Your task to perform on an android device: toggle translation in the chrome app Image 0: 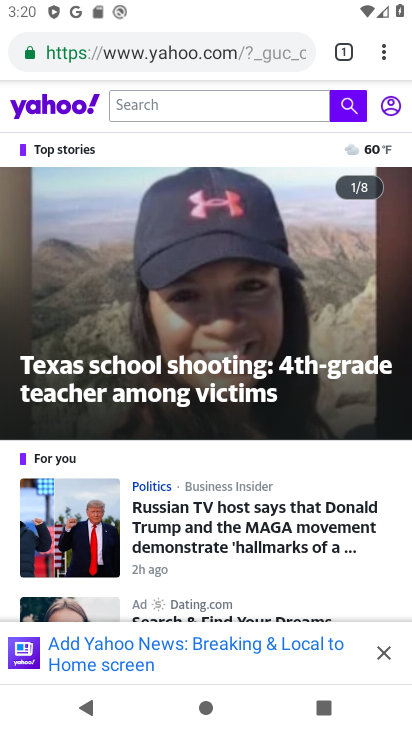
Step 0: press home button
Your task to perform on an android device: toggle translation in the chrome app Image 1: 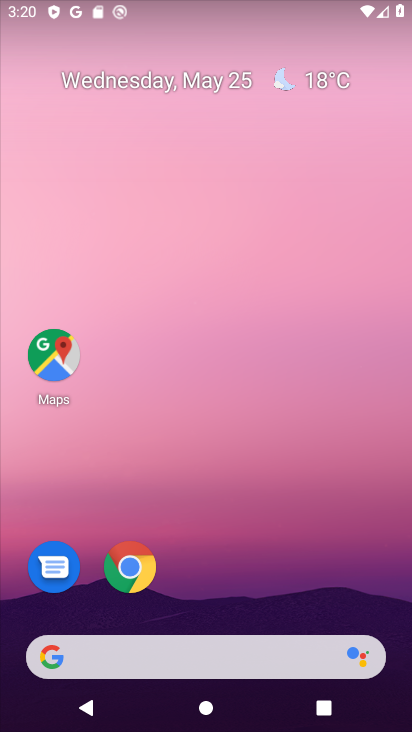
Step 1: drag from (372, 578) to (378, 227)
Your task to perform on an android device: toggle translation in the chrome app Image 2: 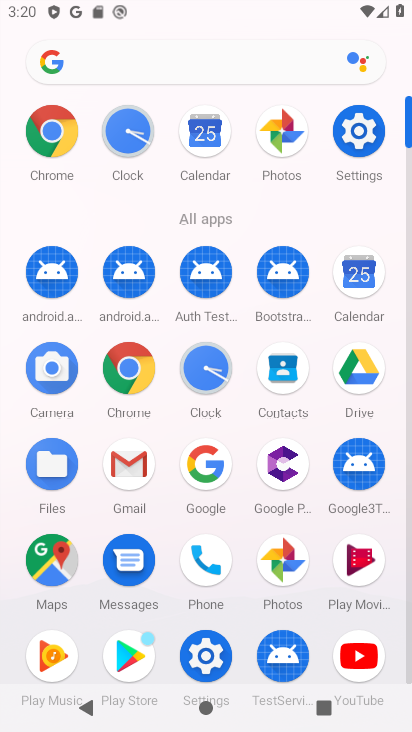
Step 2: click (102, 386)
Your task to perform on an android device: toggle translation in the chrome app Image 3: 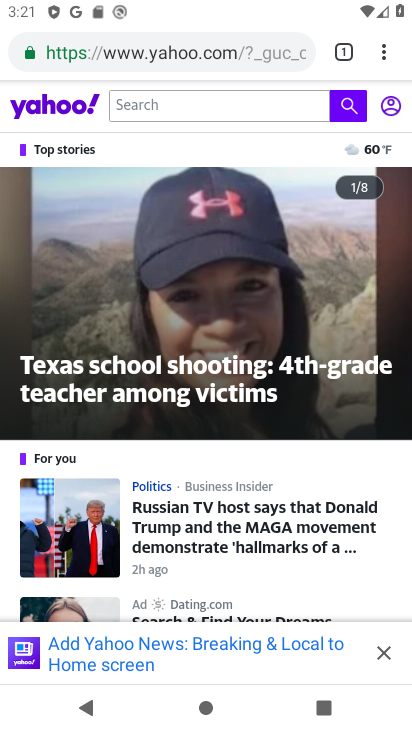
Step 3: click (386, 59)
Your task to perform on an android device: toggle translation in the chrome app Image 4: 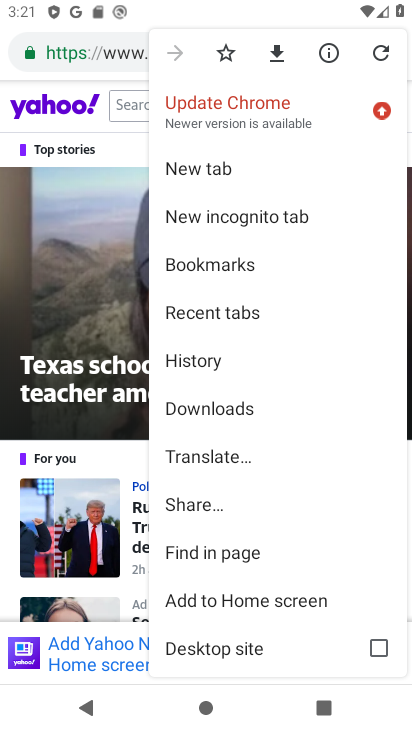
Step 4: drag from (268, 593) to (306, 353)
Your task to perform on an android device: toggle translation in the chrome app Image 5: 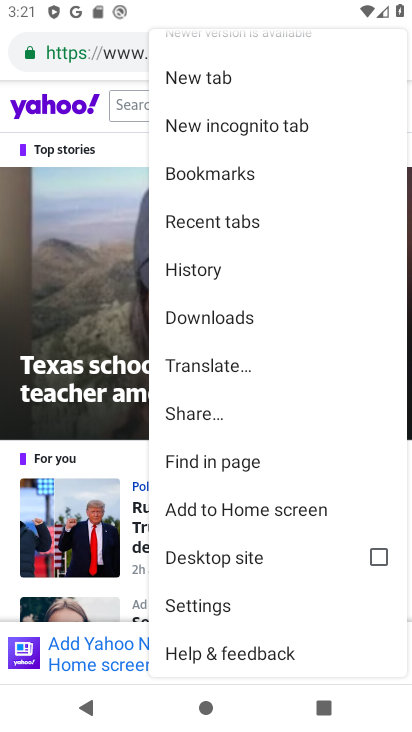
Step 5: drag from (307, 589) to (344, 400)
Your task to perform on an android device: toggle translation in the chrome app Image 6: 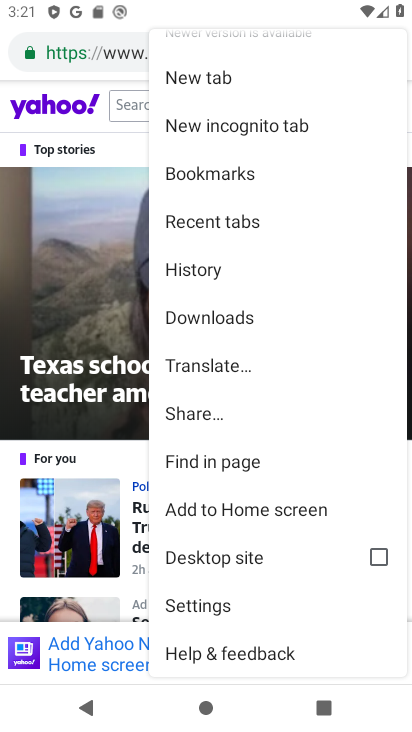
Step 6: click (214, 614)
Your task to perform on an android device: toggle translation in the chrome app Image 7: 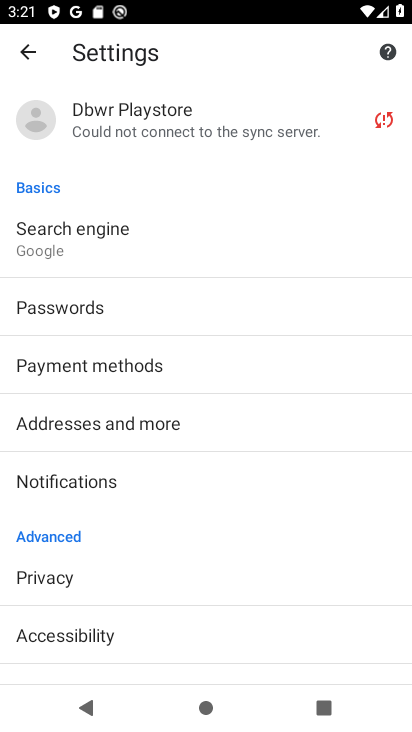
Step 7: drag from (216, 608) to (216, 484)
Your task to perform on an android device: toggle translation in the chrome app Image 8: 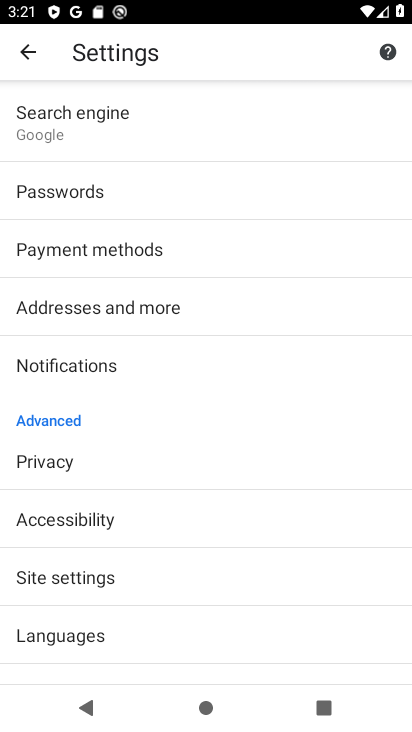
Step 8: drag from (277, 637) to (307, 463)
Your task to perform on an android device: toggle translation in the chrome app Image 9: 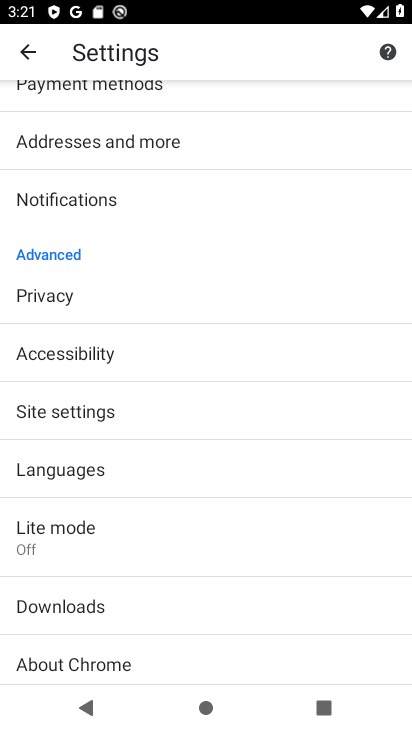
Step 9: drag from (278, 613) to (282, 468)
Your task to perform on an android device: toggle translation in the chrome app Image 10: 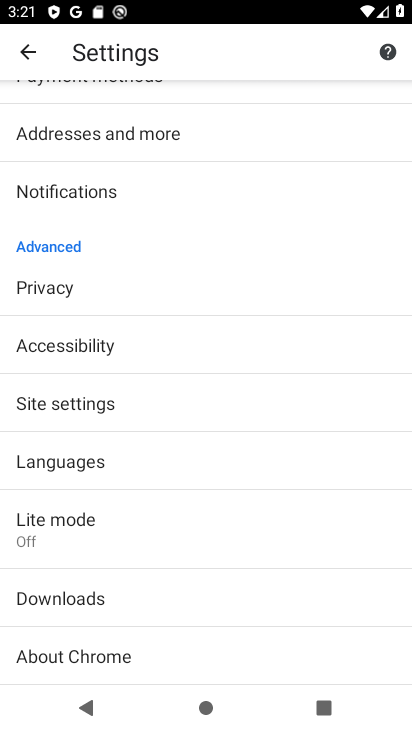
Step 10: drag from (309, 267) to (292, 410)
Your task to perform on an android device: toggle translation in the chrome app Image 11: 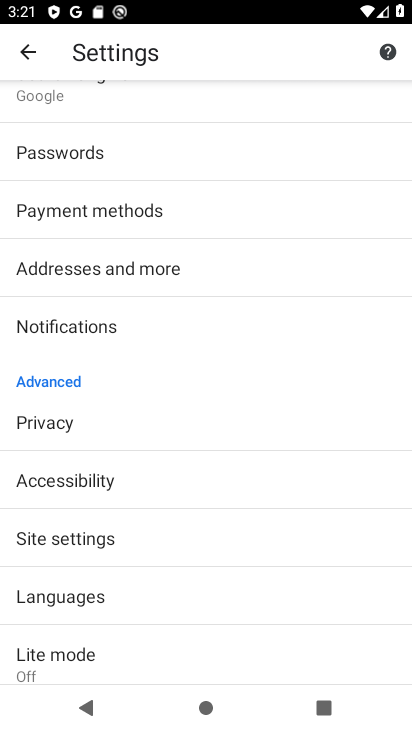
Step 11: drag from (293, 199) to (291, 308)
Your task to perform on an android device: toggle translation in the chrome app Image 12: 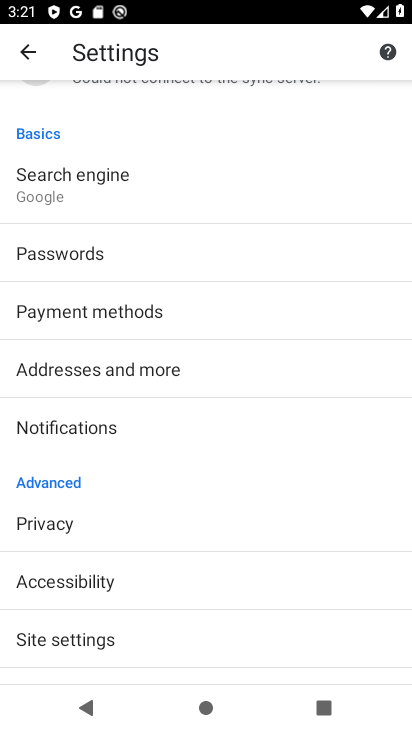
Step 12: drag from (297, 195) to (308, 350)
Your task to perform on an android device: toggle translation in the chrome app Image 13: 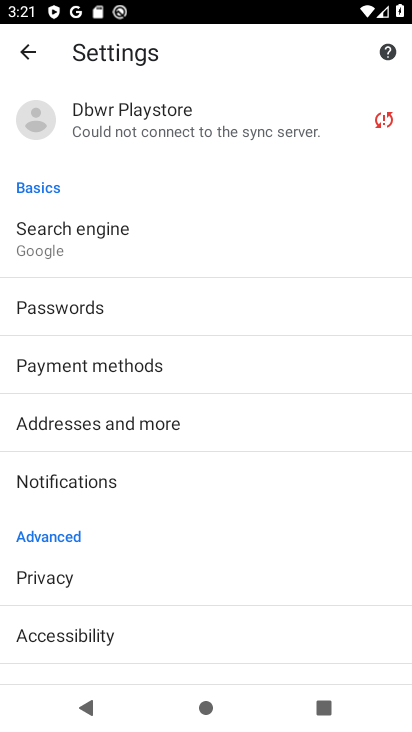
Step 13: drag from (306, 432) to (302, 310)
Your task to perform on an android device: toggle translation in the chrome app Image 14: 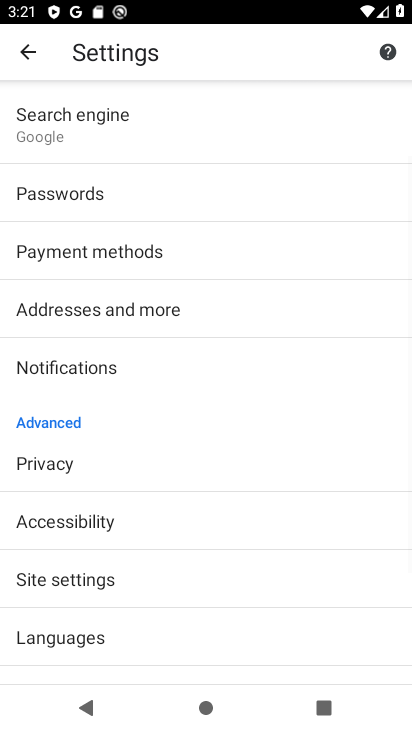
Step 14: drag from (341, 398) to (350, 358)
Your task to perform on an android device: toggle translation in the chrome app Image 15: 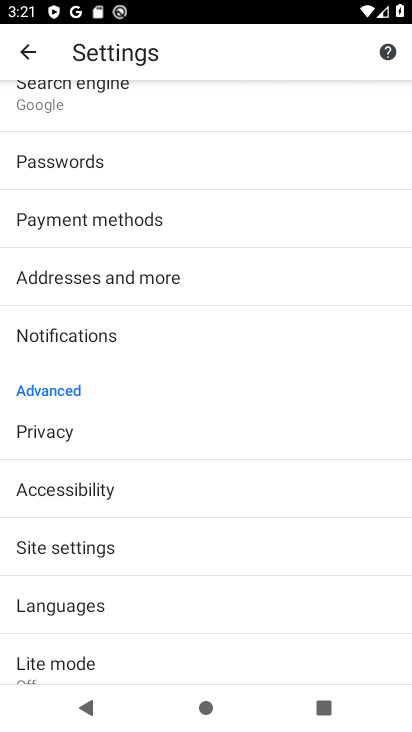
Step 15: click (279, 594)
Your task to perform on an android device: toggle translation in the chrome app Image 16: 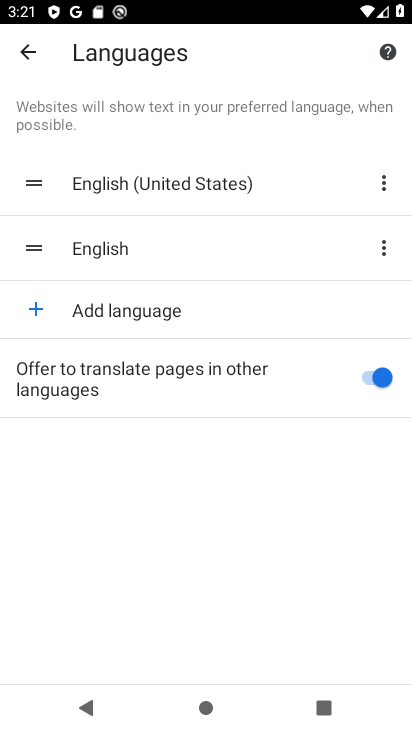
Step 16: click (384, 362)
Your task to perform on an android device: toggle translation in the chrome app Image 17: 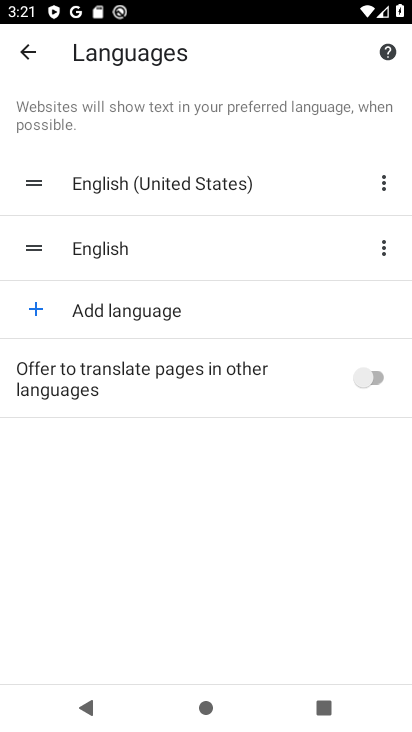
Step 17: task complete